Your task to perform on an android device: Open Chrome and go to the settings page Image 0: 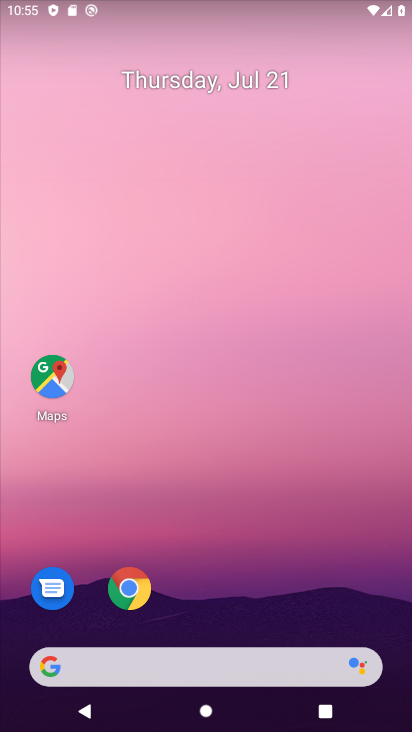
Step 0: press home button
Your task to perform on an android device: Open Chrome and go to the settings page Image 1: 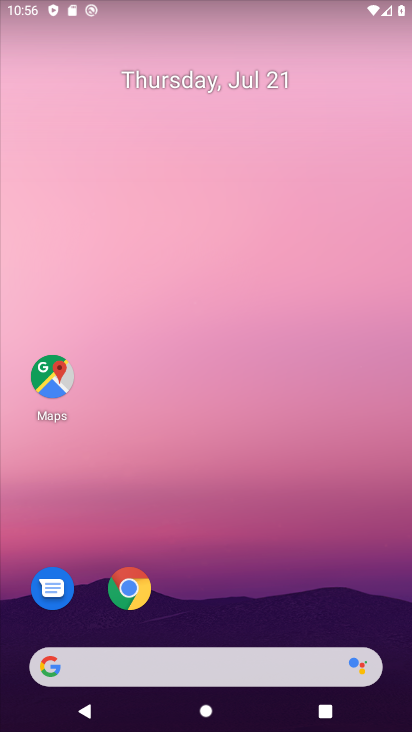
Step 1: drag from (207, 627) to (252, 40)
Your task to perform on an android device: Open Chrome and go to the settings page Image 2: 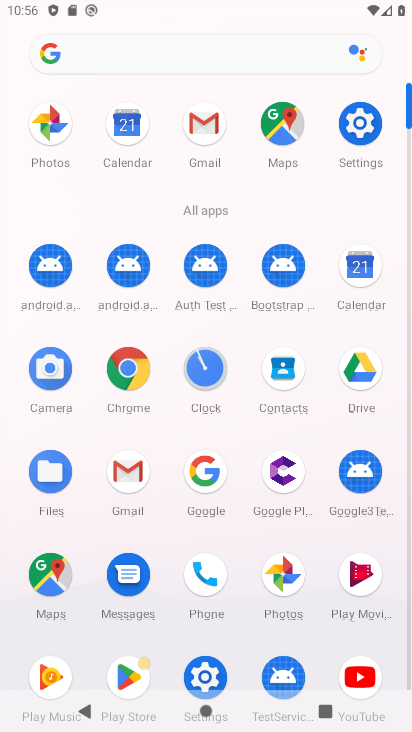
Step 2: click (356, 116)
Your task to perform on an android device: Open Chrome and go to the settings page Image 3: 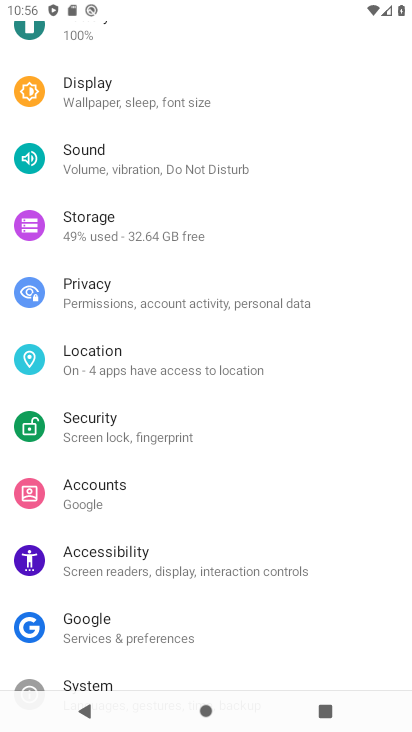
Step 3: press home button
Your task to perform on an android device: Open Chrome and go to the settings page Image 4: 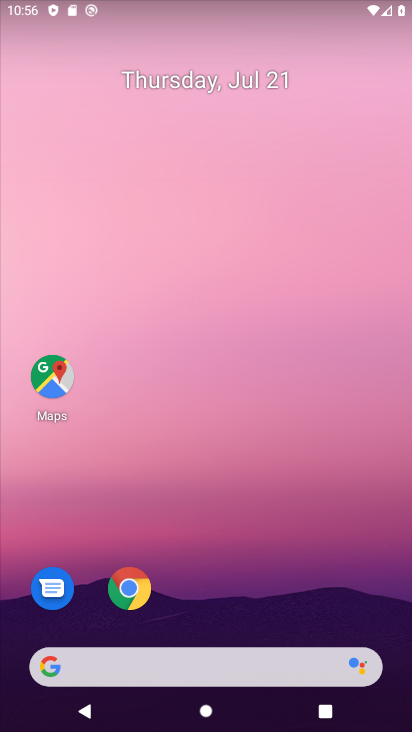
Step 4: click (129, 585)
Your task to perform on an android device: Open Chrome and go to the settings page Image 5: 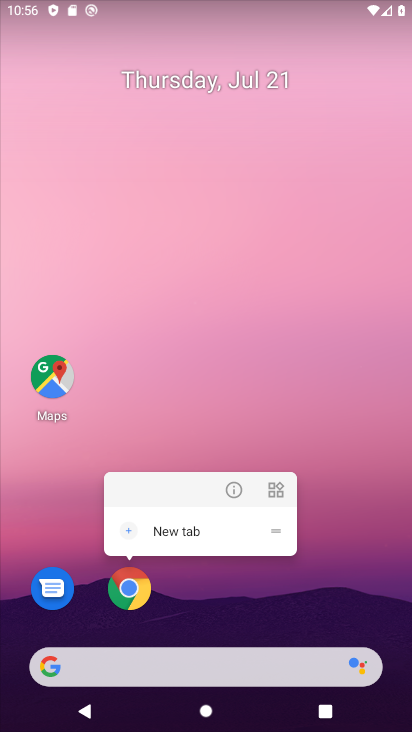
Step 5: click (124, 584)
Your task to perform on an android device: Open Chrome and go to the settings page Image 6: 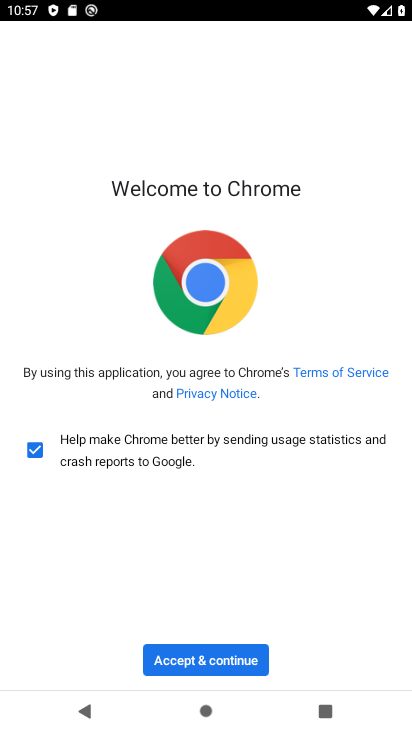
Step 6: click (200, 653)
Your task to perform on an android device: Open Chrome and go to the settings page Image 7: 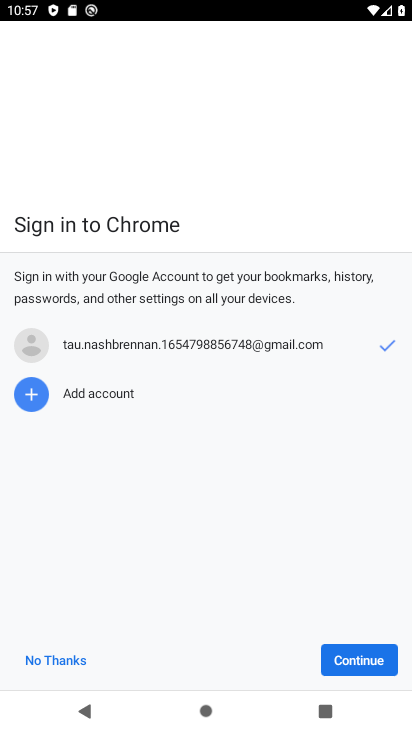
Step 7: click (364, 657)
Your task to perform on an android device: Open Chrome and go to the settings page Image 8: 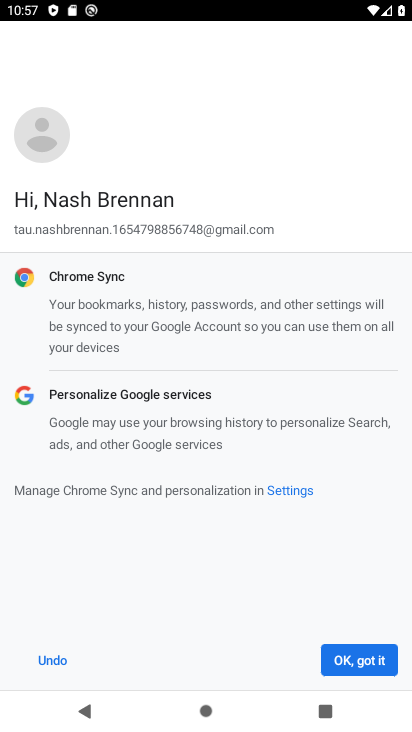
Step 8: click (355, 658)
Your task to perform on an android device: Open Chrome and go to the settings page Image 9: 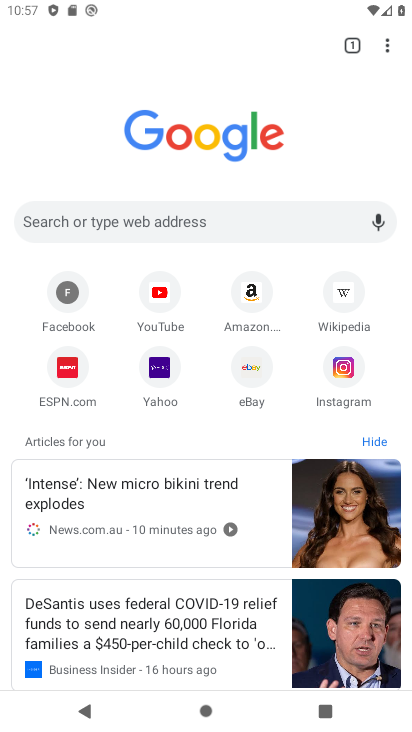
Step 9: click (386, 40)
Your task to perform on an android device: Open Chrome and go to the settings page Image 10: 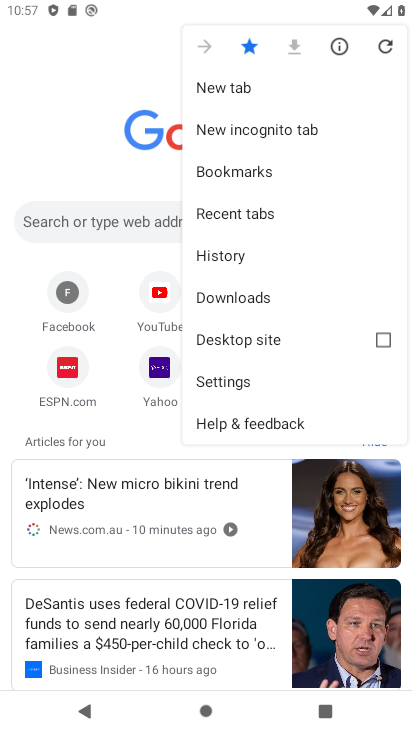
Step 10: click (256, 379)
Your task to perform on an android device: Open Chrome and go to the settings page Image 11: 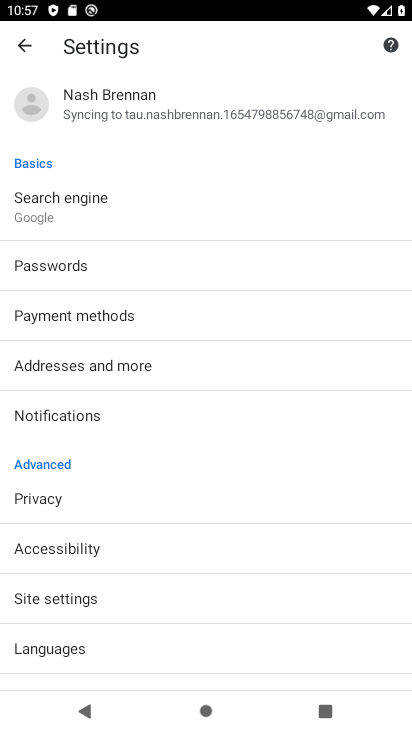
Step 11: task complete